Your task to perform on an android device: open a bookmark in the chrome app Image 0: 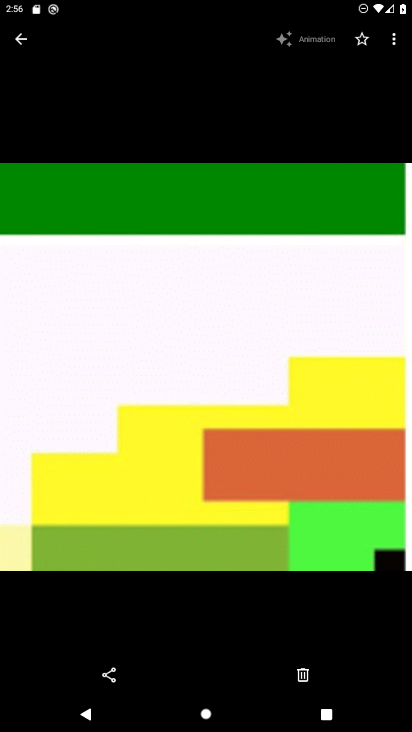
Step 0: press home button
Your task to perform on an android device: open a bookmark in the chrome app Image 1: 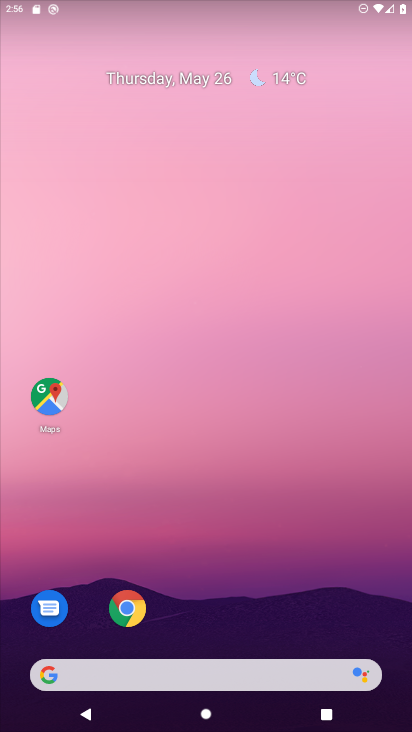
Step 1: drag from (283, 539) to (253, 131)
Your task to perform on an android device: open a bookmark in the chrome app Image 2: 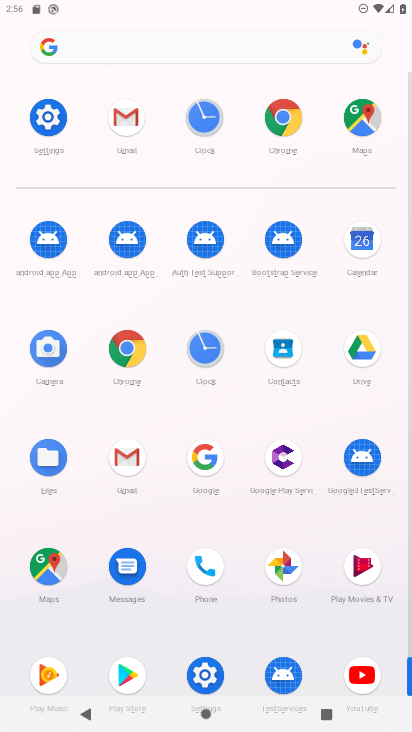
Step 2: click (292, 124)
Your task to perform on an android device: open a bookmark in the chrome app Image 3: 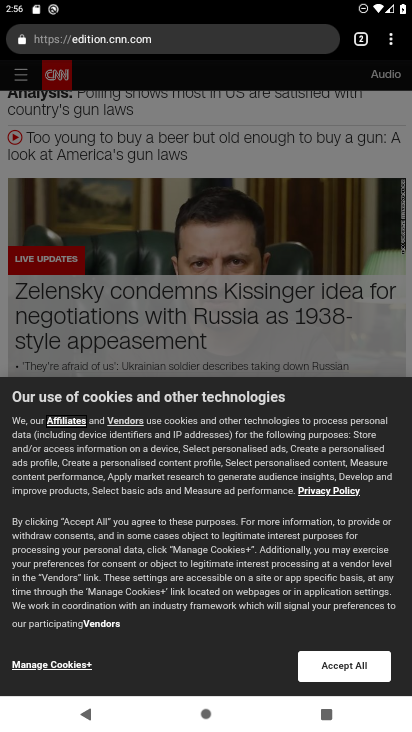
Step 3: drag from (391, 46) to (264, 159)
Your task to perform on an android device: open a bookmark in the chrome app Image 4: 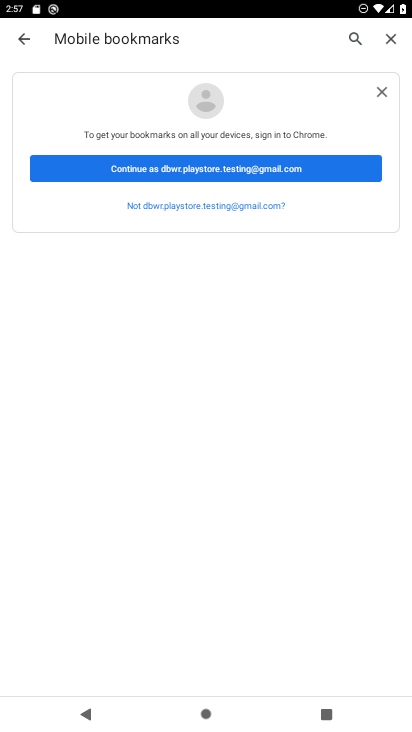
Step 4: click (228, 157)
Your task to perform on an android device: open a bookmark in the chrome app Image 5: 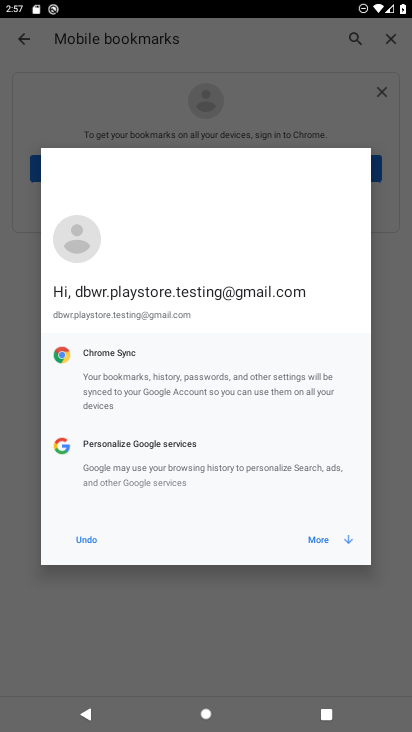
Step 5: click (330, 539)
Your task to perform on an android device: open a bookmark in the chrome app Image 6: 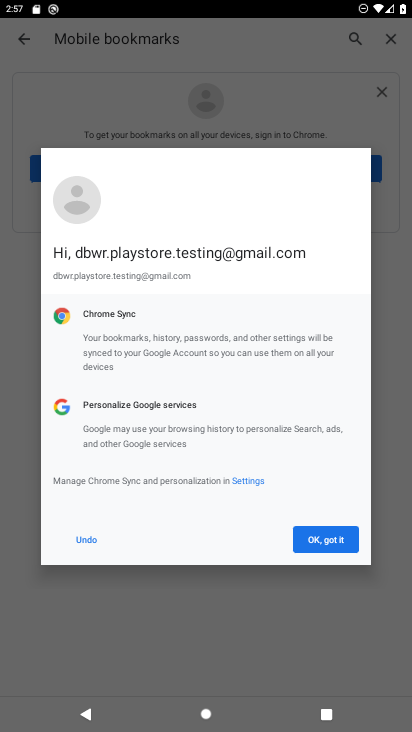
Step 6: click (330, 539)
Your task to perform on an android device: open a bookmark in the chrome app Image 7: 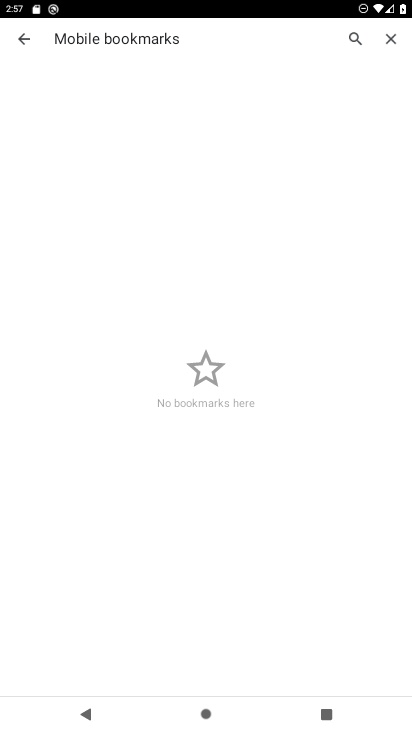
Step 7: task complete